Your task to perform on an android device: move an email to a new category in the gmail app Image 0: 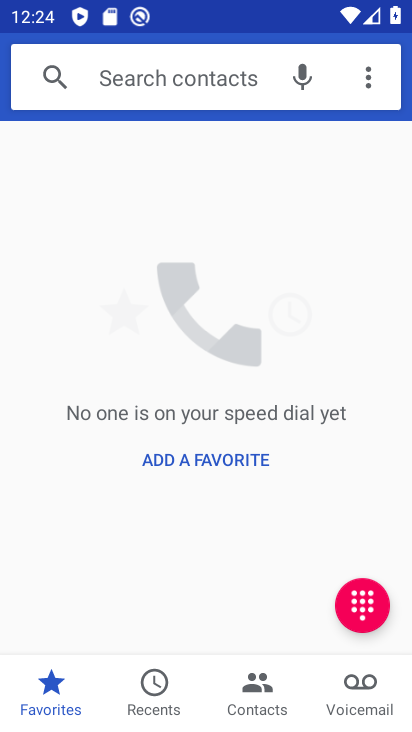
Step 0: press home button
Your task to perform on an android device: move an email to a new category in the gmail app Image 1: 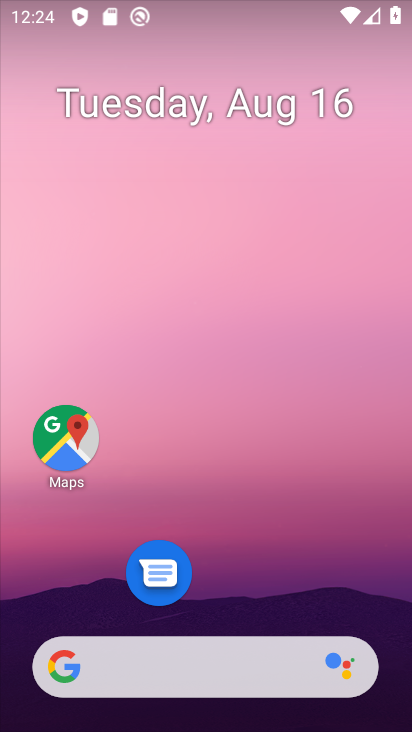
Step 1: drag from (195, 622) to (176, 8)
Your task to perform on an android device: move an email to a new category in the gmail app Image 2: 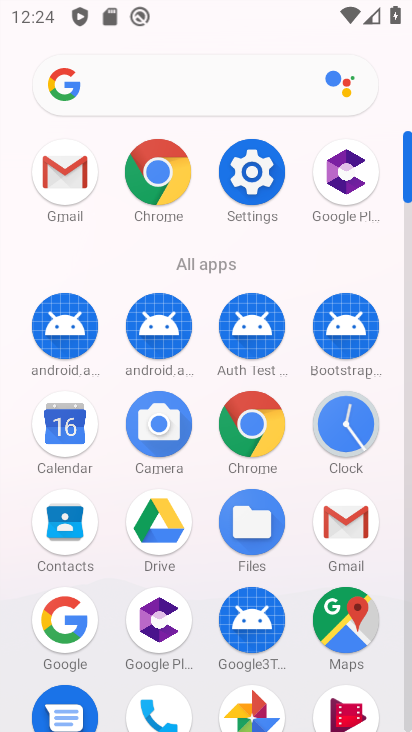
Step 2: click (350, 533)
Your task to perform on an android device: move an email to a new category in the gmail app Image 3: 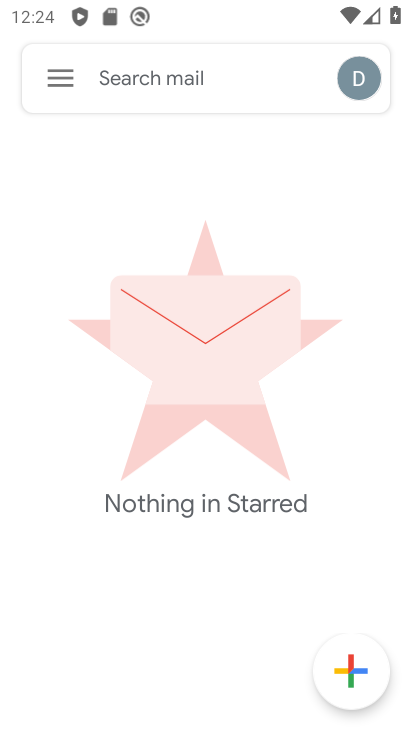
Step 3: click (56, 75)
Your task to perform on an android device: move an email to a new category in the gmail app Image 4: 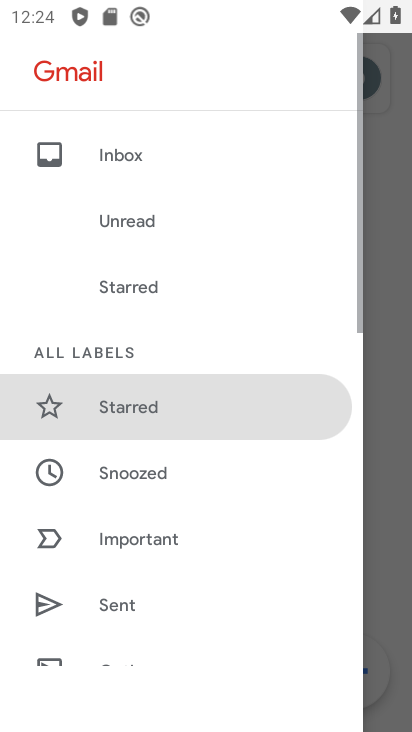
Step 4: click (149, 161)
Your task to perform on an android device: move an email to a new category in the gmail app Image 5: 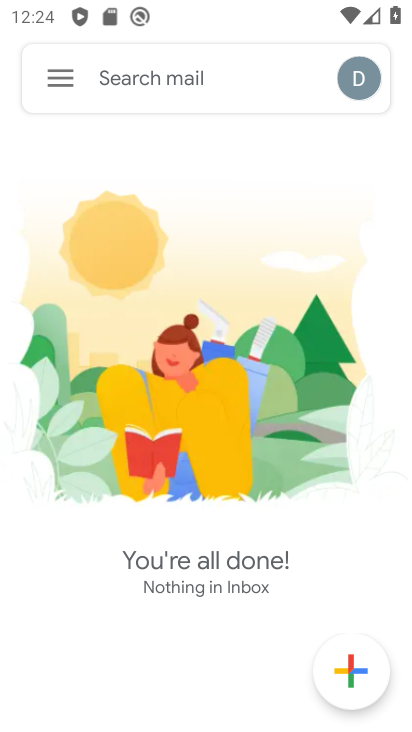
Step 5: task complete